Your task to perform on an android device: star an email in the gmail app Image 0: 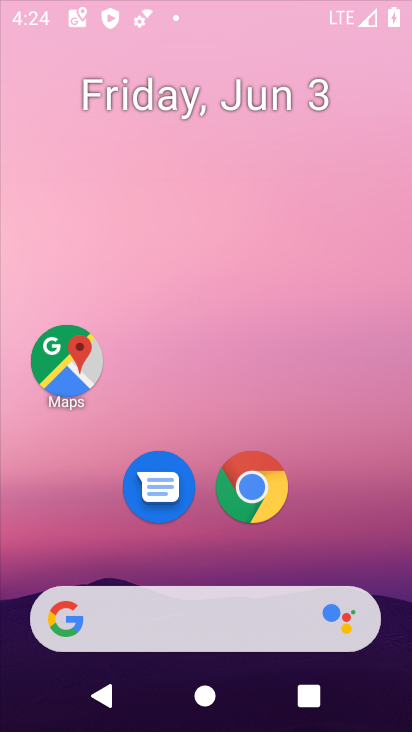
Step 0: click (192, 2)
Your task to perform on an android device: star an email in the gmail app Image 1: 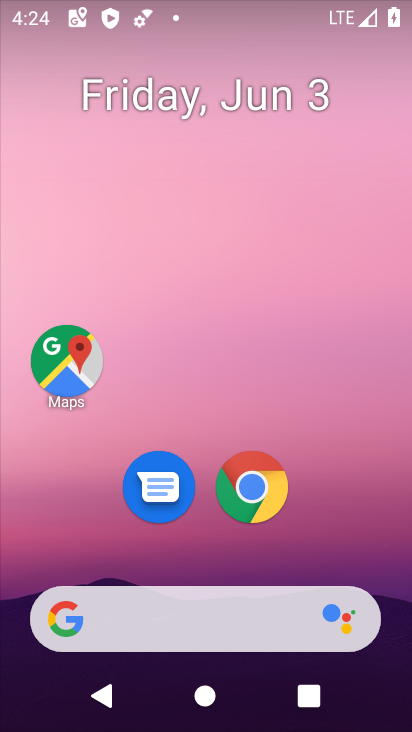
Step 1: drag from (216, 563) to (215, 103)
Your task to perform on an android device: star an email in the gmail app Image 2: 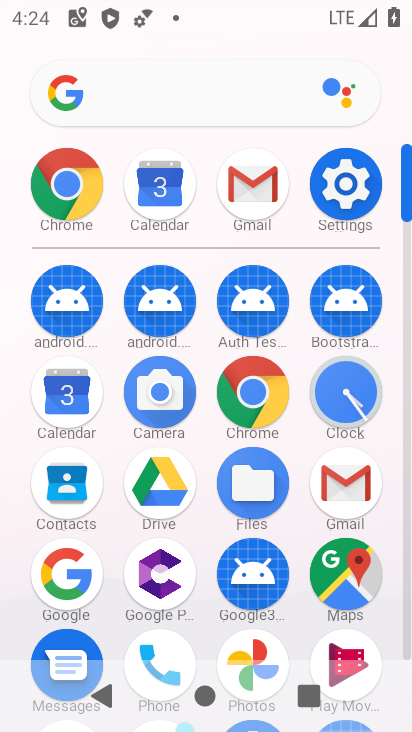
Step 2: click (344, 497)
Your task to perform on an android device: star an email in the gmail app Image 3: 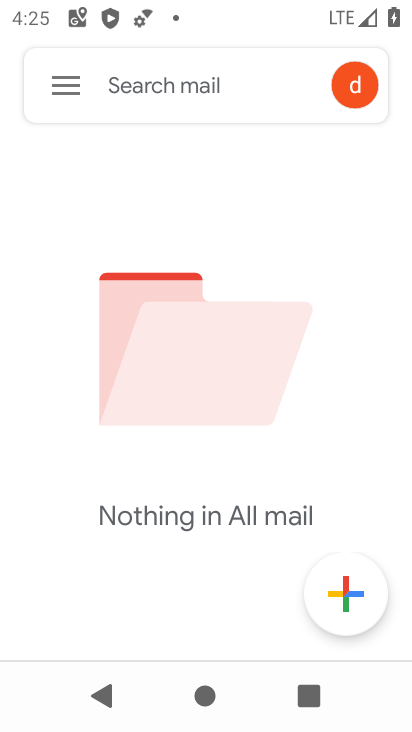
Step 3: click (85, 78)
Your task to perform on an android device: star an email in the gmail app Image 4: 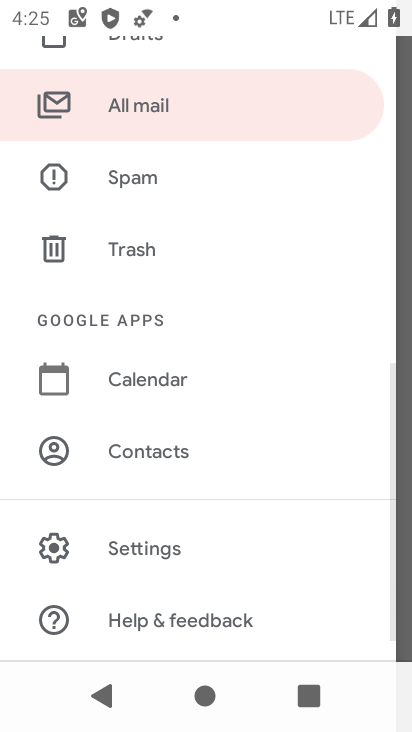
Step 4: drag from (198, 153) to (263, 719)
Your task to perform on an android device: star an email in the gmail app Image 5: 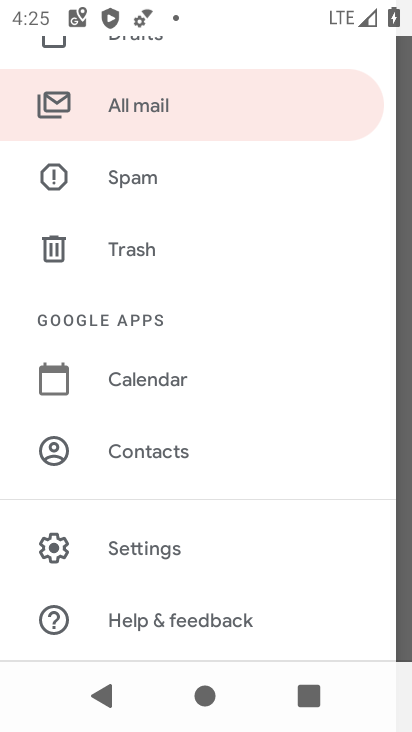
Step 5: drag from (179, 206) to (310, 731)
Your task to perform on an android device: star an email in the gmail app Image 6: 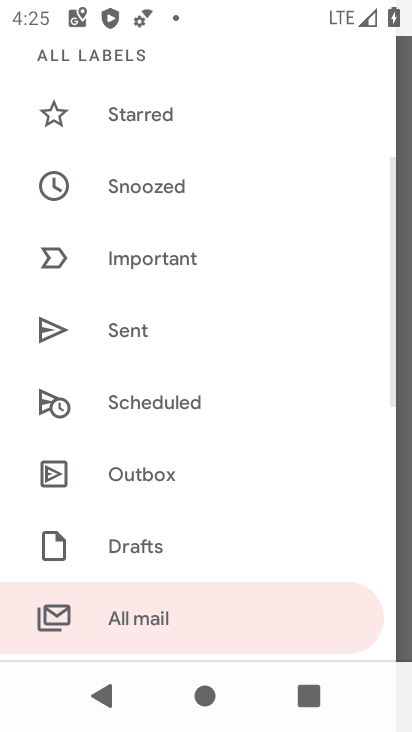
Step 6: drag from (194, 146) to (275, 725)
Your task to perform on an android device: star an email in the gmail app Image 7: 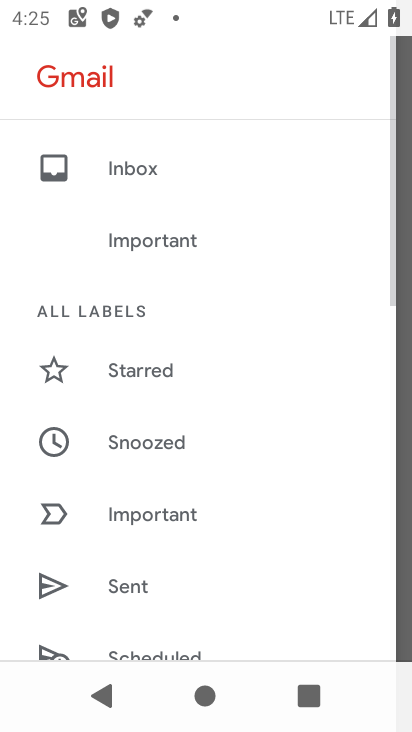
Step 7: click (115, 366)
Your task to perform on an android device: star an email in the gmail app Image 8: 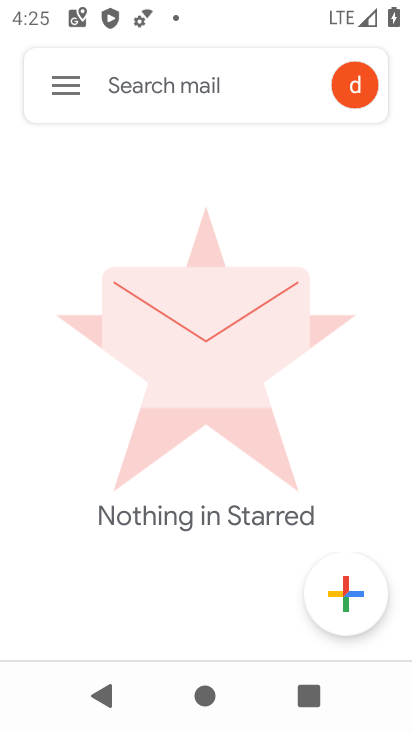
Step 8: task complete